Your task to perform on an android device: Open Chrome and go to settings Image 0: 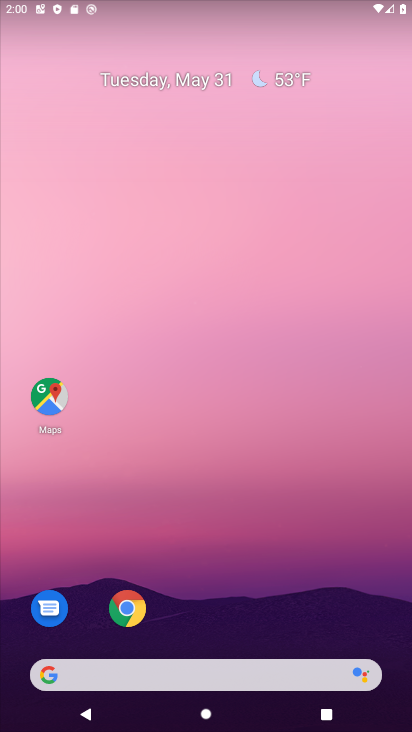
Step 0: click (127, 598)
Your task to perform on an android device: Open Chrome and go to settings Image 1: 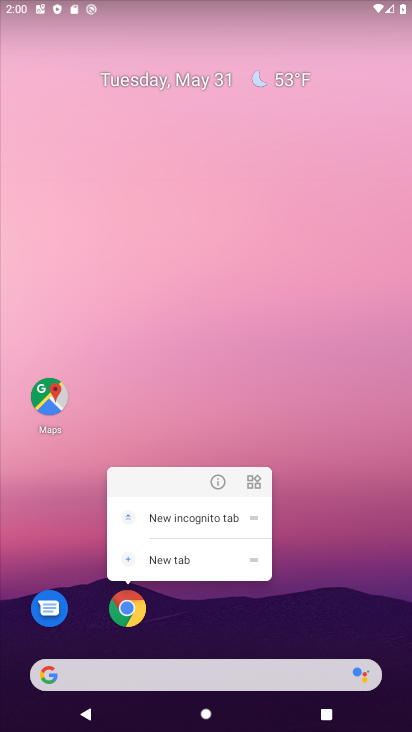
Step 1: click (132, 608)
Your task to perform on an android device: Open Chrome and go to settings Image 2: 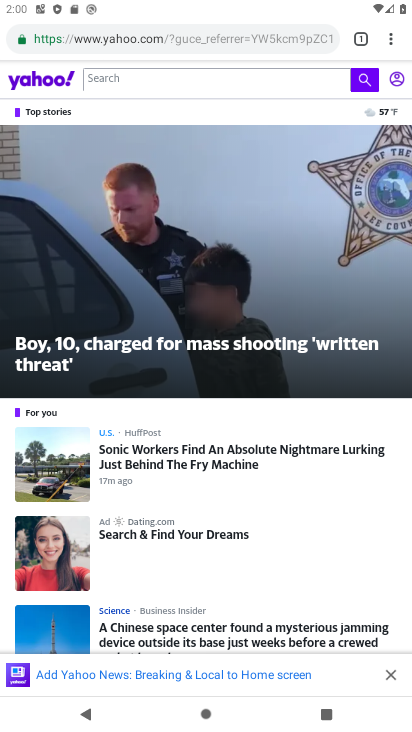
Step 2: click (390, 40)
Your task to perform on an android device: Open Chrome and go to settings Image 3: 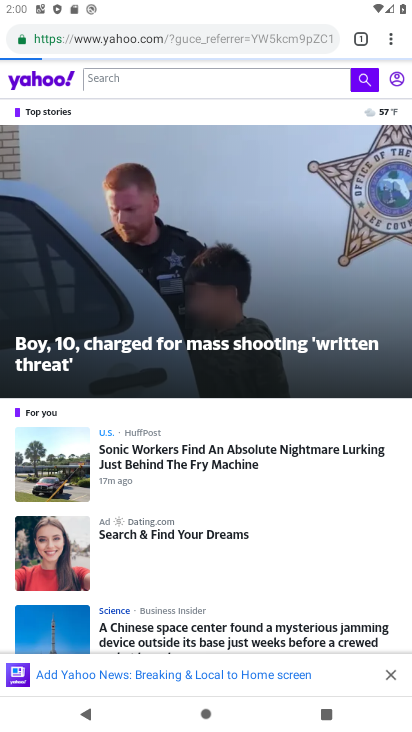
Step 3: task complete